Your task to perform on an android device: turn off notifications settings in the gmail app Image 0: 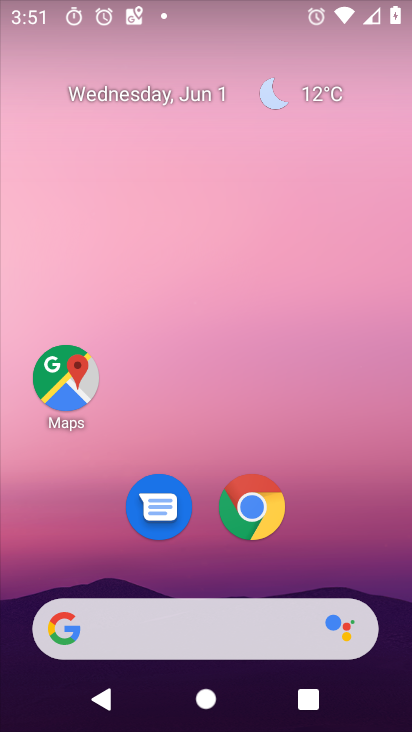
Step 0: drag from (329, 596) to (373, 35)
Your task to perform on an android device: turn off notifications settings in the gmail app Image 1: 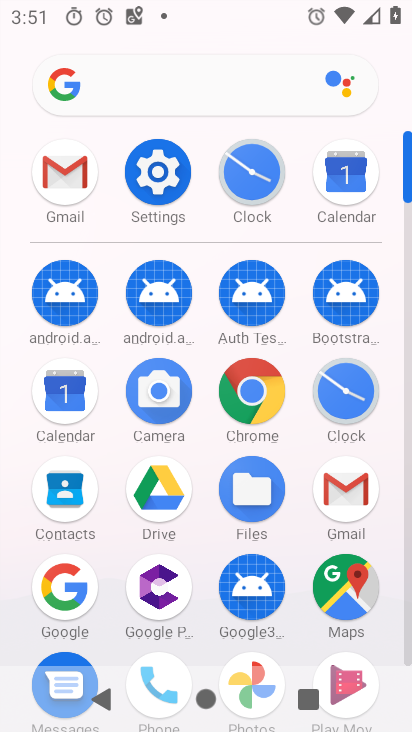
Step 1: click (62, 175)
Your task to perform on an android device: turn off notifications settings in the gmail app Image 2: 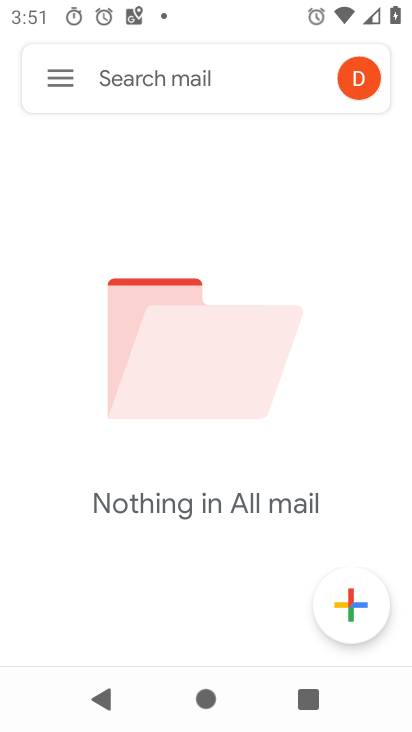
Step 2: click (66, 82)
Your task to perform on an android device: turn off notifications settings in the gmail app Image 3: 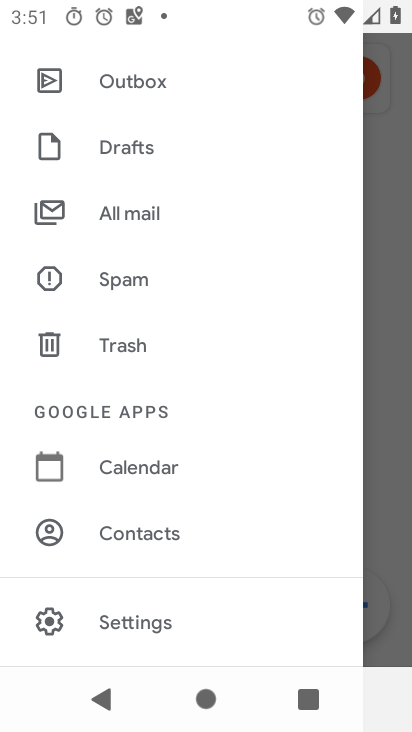
Step 3: click (145, 624)
Your task to perform on an android device: turn off notifications settings in the gmail app Image 4: 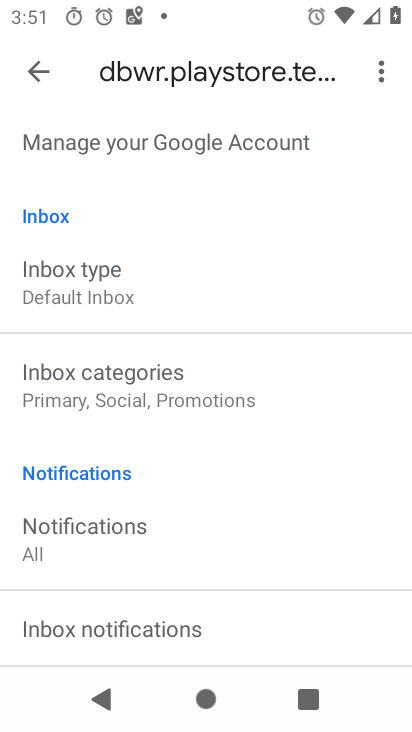
Step 4: click (34, 75)
Your task to perform on an android device: turn off notifications settings in the gmail app Image 5: 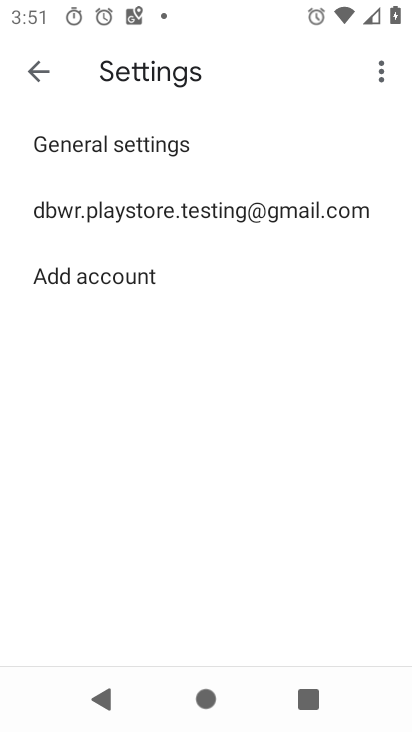
Step 5: click (85, 154)
Your task to perform on an android device: turn off notifications settings in the gmail app Image 6: 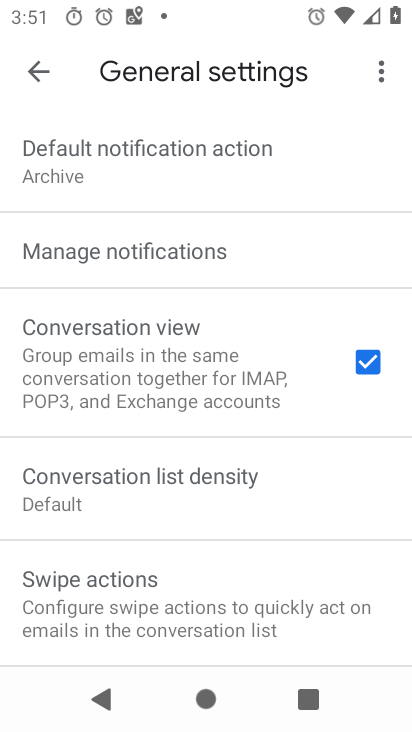
Step 6: click (165, 250)
Your task to perform on an android device: turn off notifications settings in the gmail app Image 7: 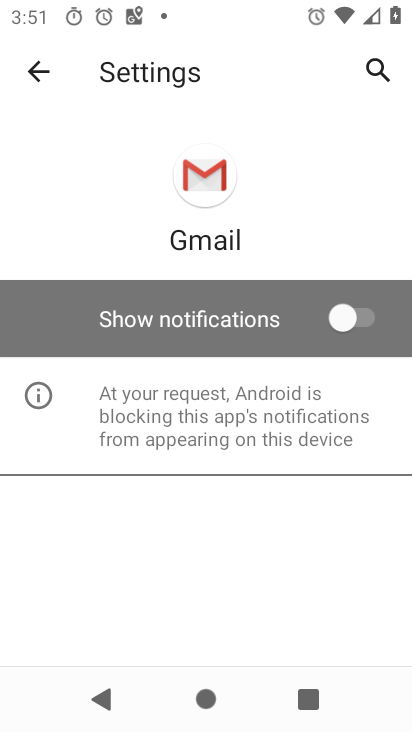
Step 7: task complete